Your task to perform on an android device: Show me the alarms in the clock app Image 0: 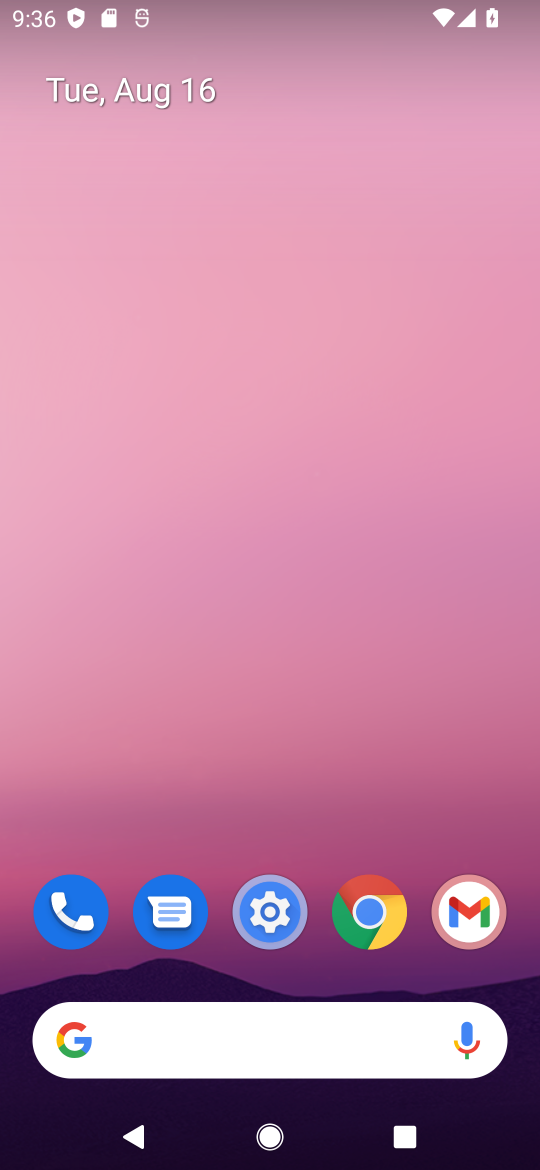
Step 0: drag from (224, 840) to (263, 175)
Your task to perform on an android device: Show me the alarms in the clock app Image 1: 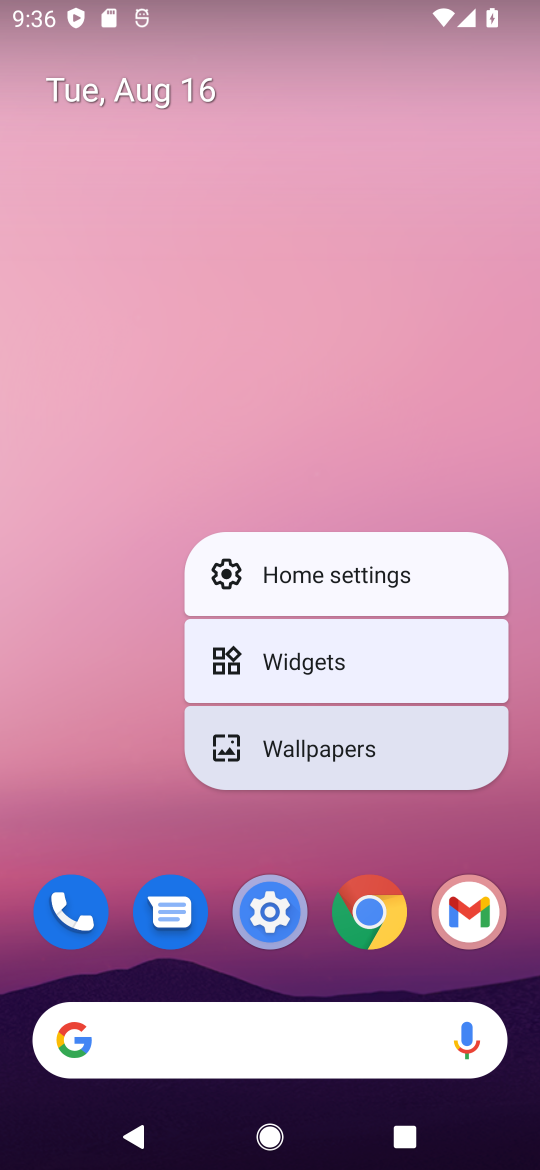
Step 1: drag from (237, 857) to (136, 16)
Your task to perform on an android device: Show me the alarms in the clock app Image 2: 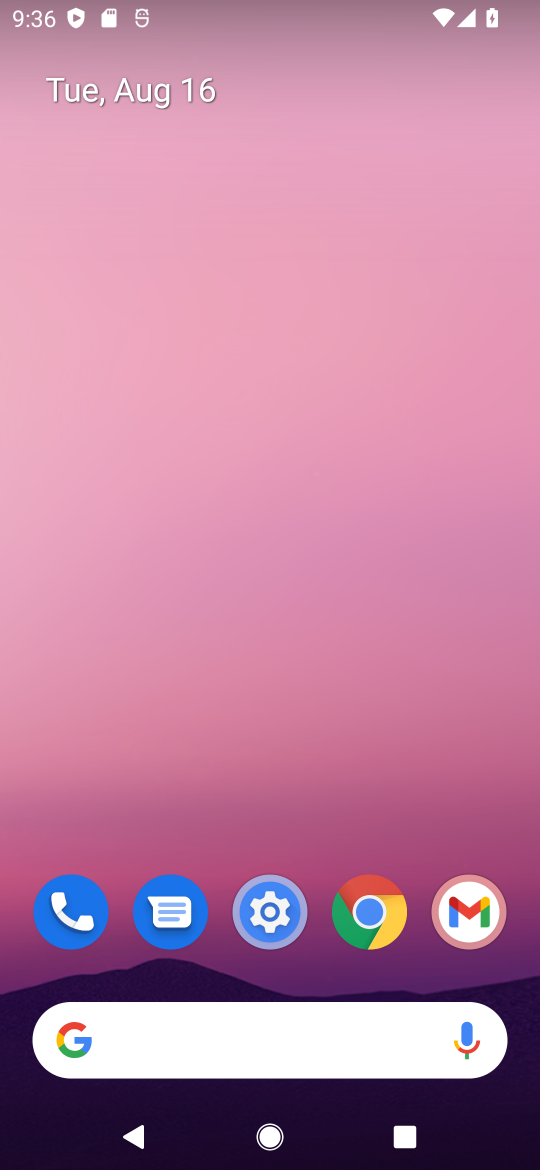
Step 2: drag from (241, 966) to (256, 142)
Your task to perform on an android device: Show me the alarms in the clock app Image 3: 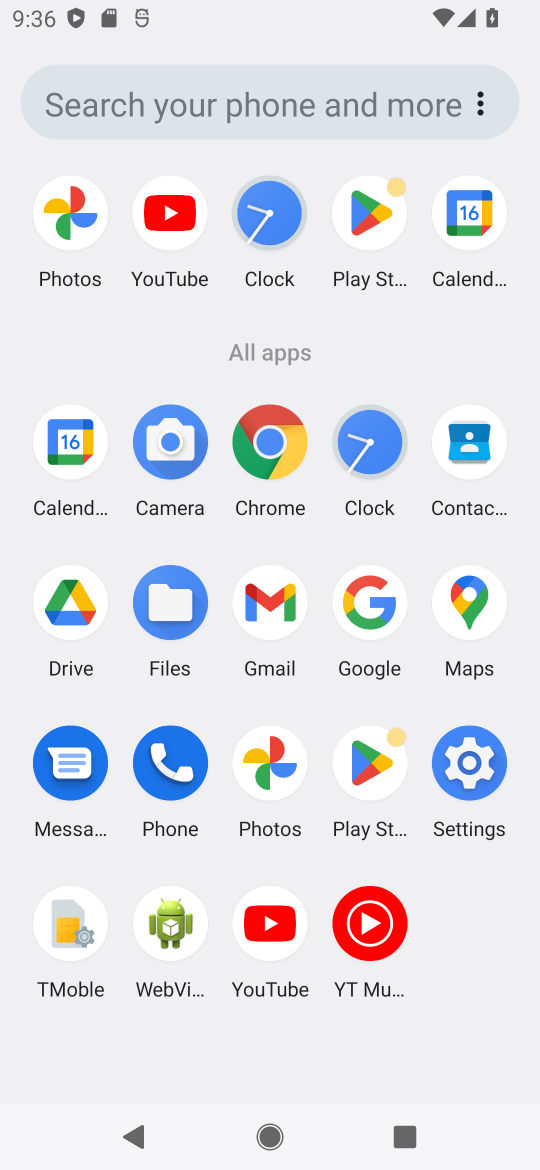
Step 3: click (280, 266)
Your task to perform on an android device: Show me the alarms in the clock app Image 4: 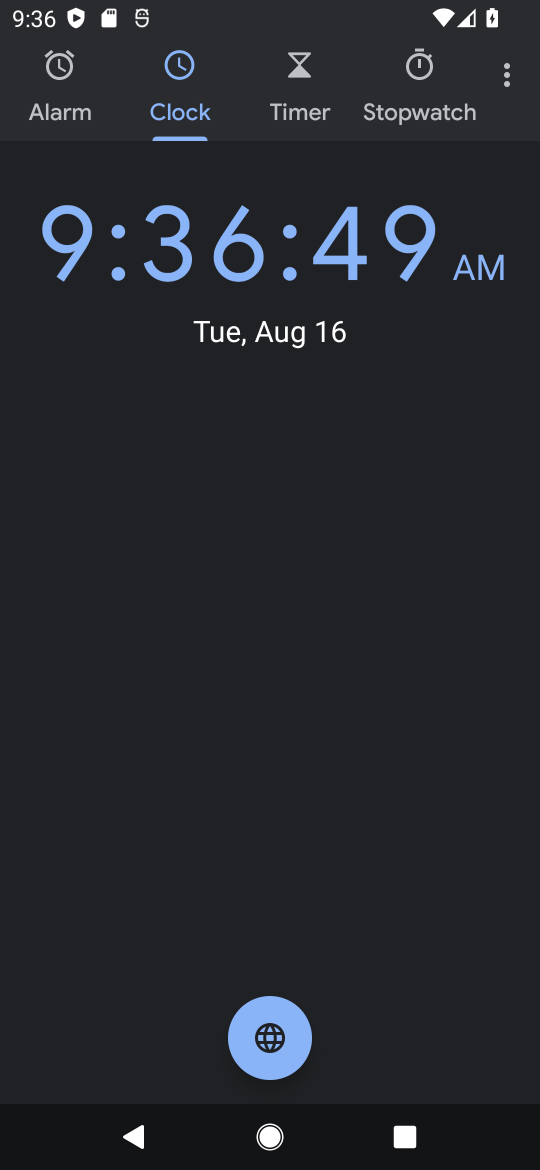
Step 4: click (81, 128)
Your task to perform on an android device: Show me the alarms in the clock app Image 5: 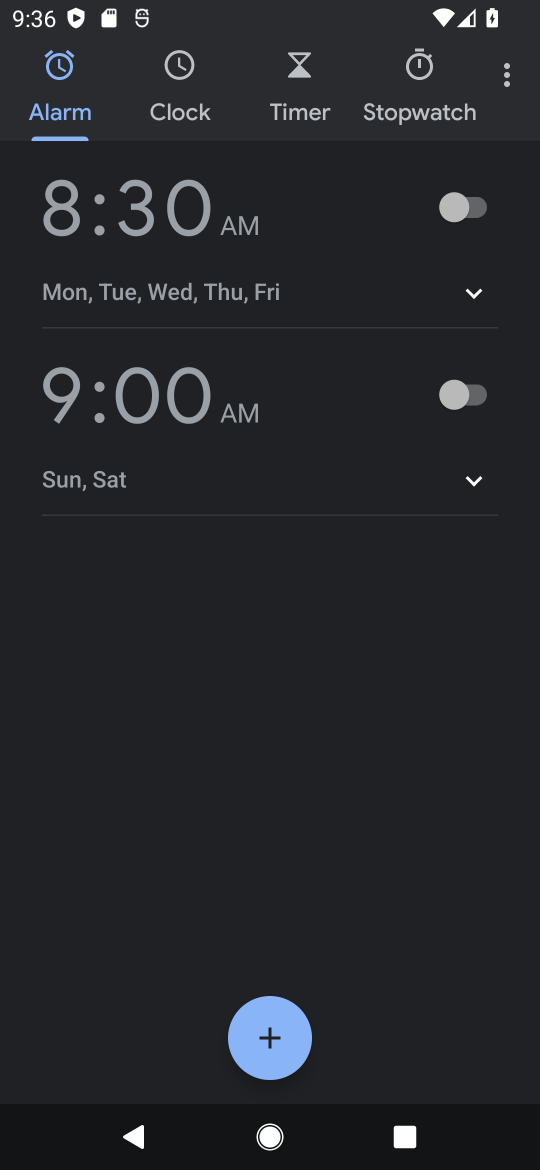
Step 5: task complete